Your task to perform on an android device: turn pop-ups off in chrome Image 0: 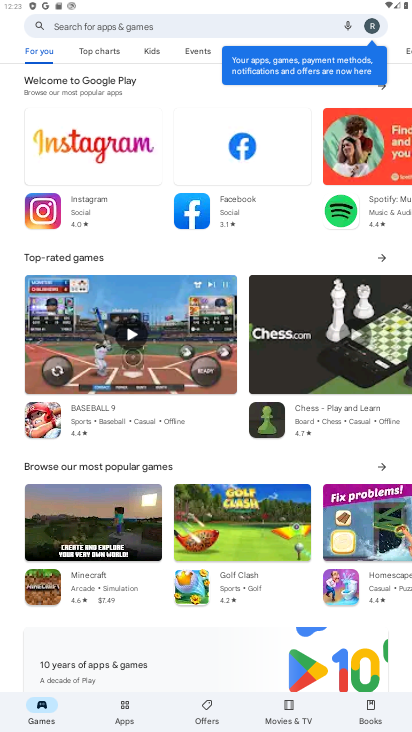
Step 0: press home button
Your task to perform on an android device: turn pop-ups off in chrome Image 1: 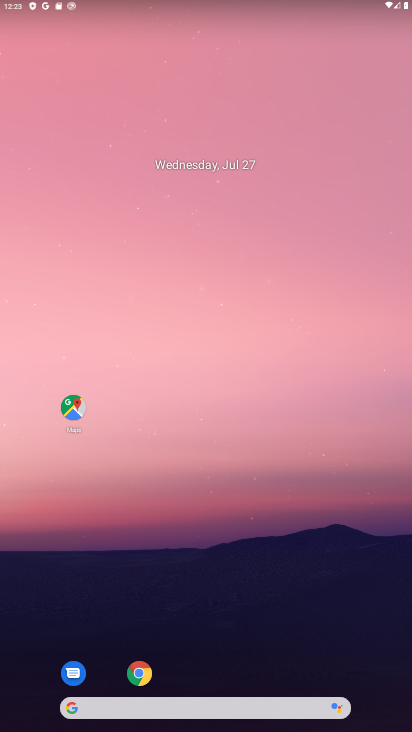
Step 1: click (138, 673)
Your task to perform on an android device: turn pop-ups off in chrome Image 2: 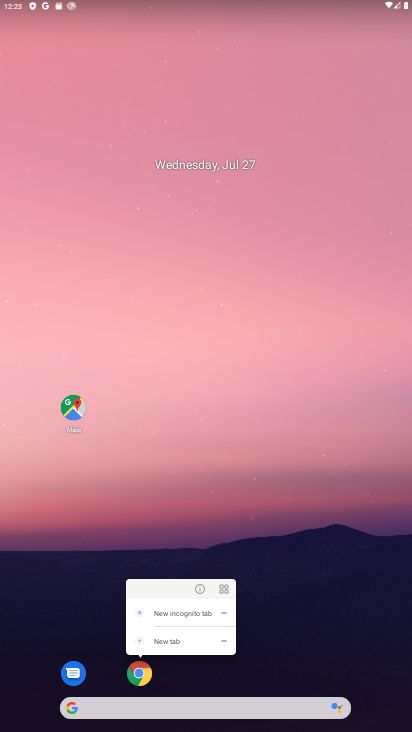
Step 2: click (138, 673)
Your task to perform on an android device: turn pop-ups off in chrome Image 3: 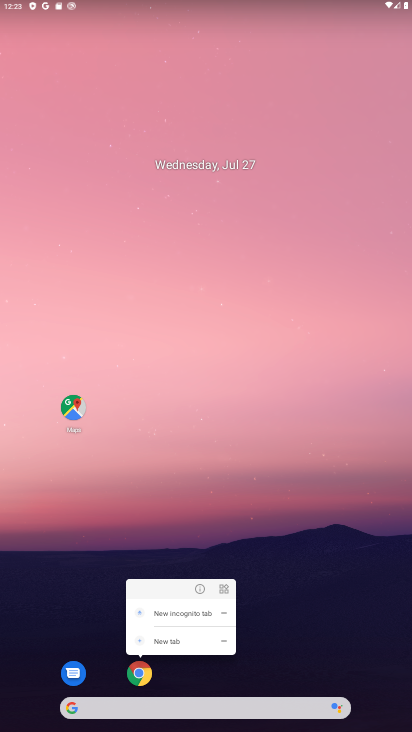
Step 3: click (138, 673)
Your task to perform on an android device: turn pop-ups off in chrome Image 4: 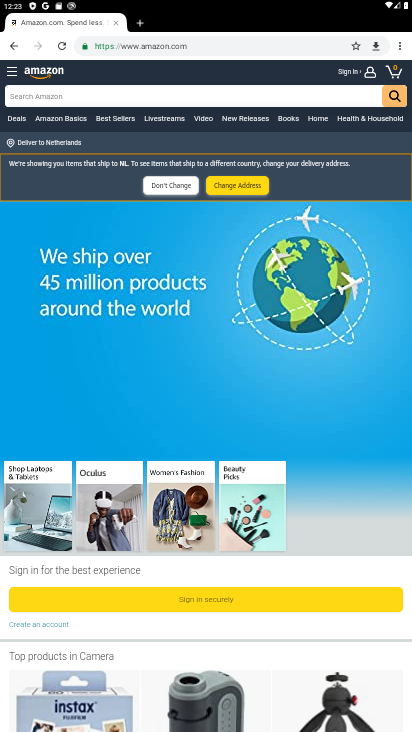
Step 4: drag from (399, 47) to (322, 308)
Your task to perform on an android device: turn pop-ups off in chrome Image 5: 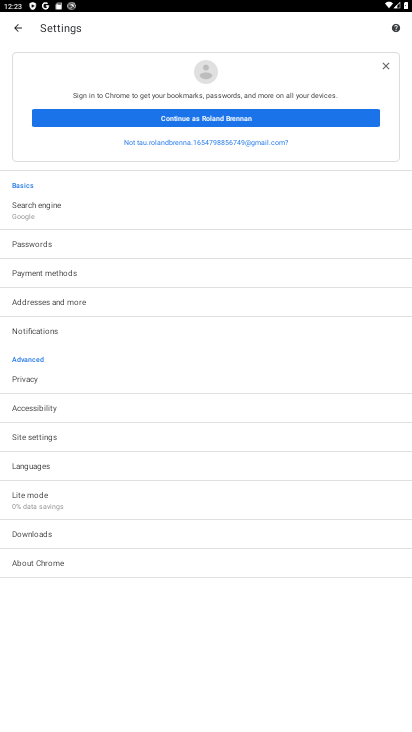
Step 5: click (19, 441)
Your task to perform on an android device: turn pop-ups off in chrome Image 6: 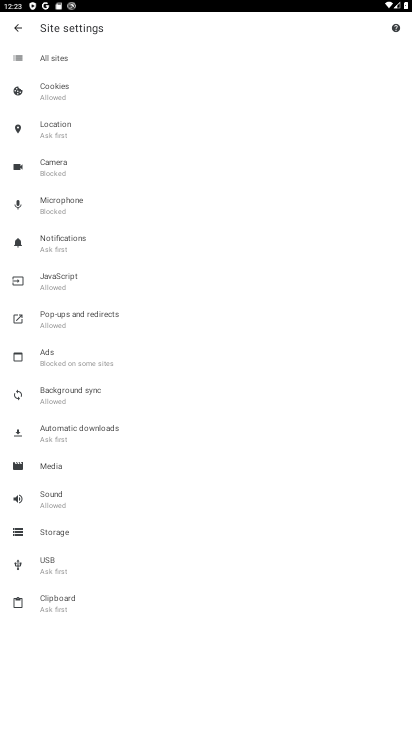
Step 6: click (45, 319)
Your task to perform on an android device: turn pop-ups off in chrome Image 7: 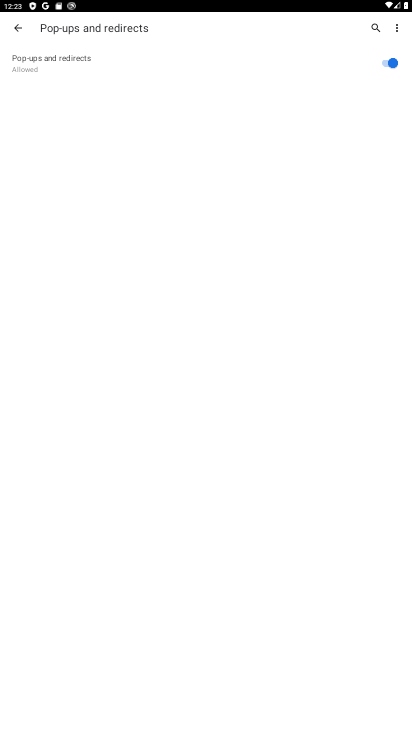
Step 7: click (389, 67)
Your task to perform on an android device: turn pop-ups off in chrome Image 8: 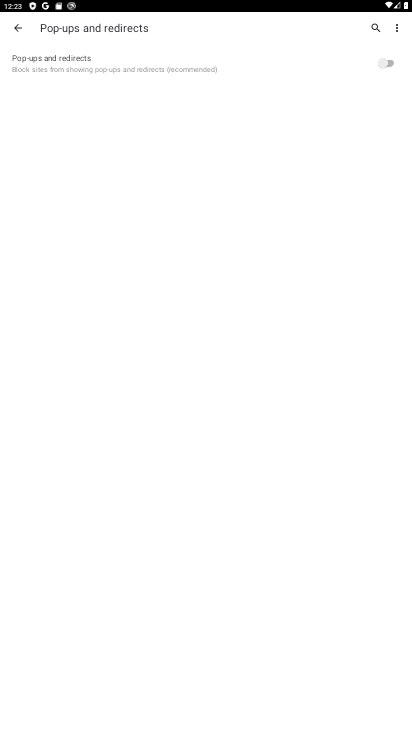
Step 8: task complete